Your task to perform on an android device: Go to accessibility settings Image 0: 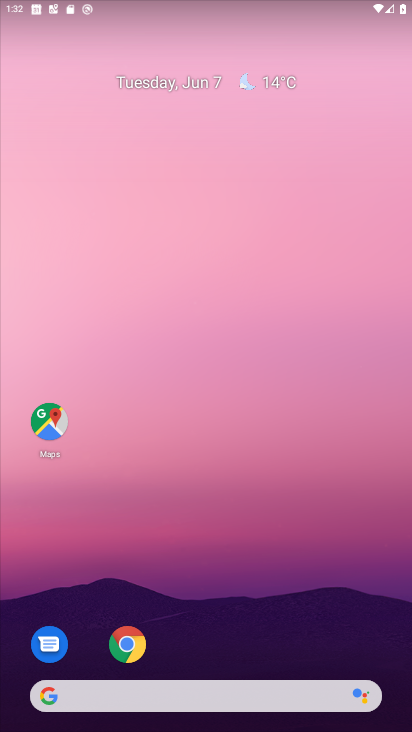
Step 0: drag from (294, 626) to (296, 0)
Your task to perform on an android device: Go to accessibility settings Image 1: 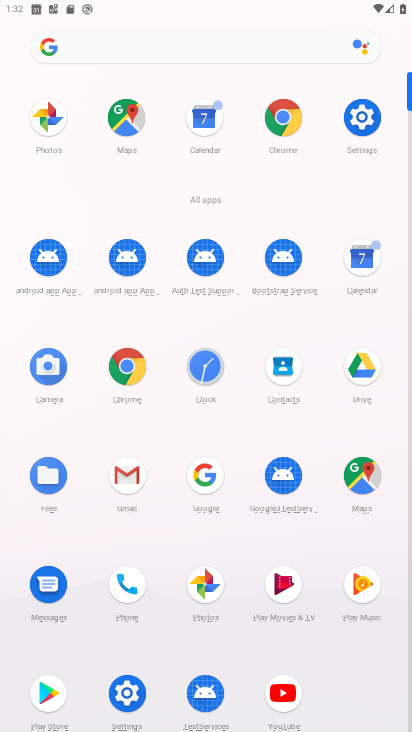
Step 1: click (357, 122)
Your task to perform on an android device: Go to accessibility settings Image 2: 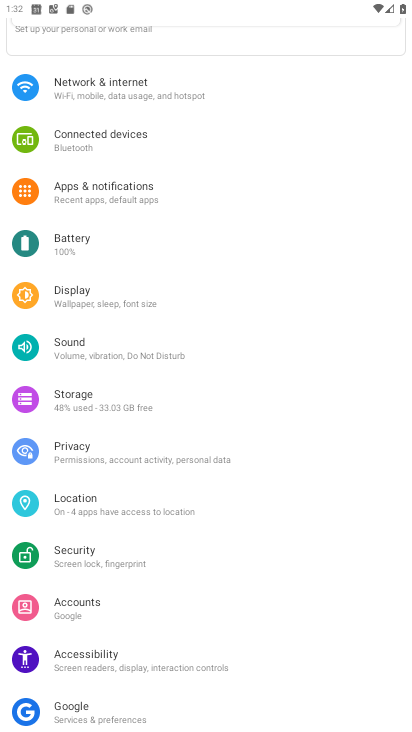
Step 2: click (96, 645)
Your task to perform on an android device: Go to accessibility settings Image 3: 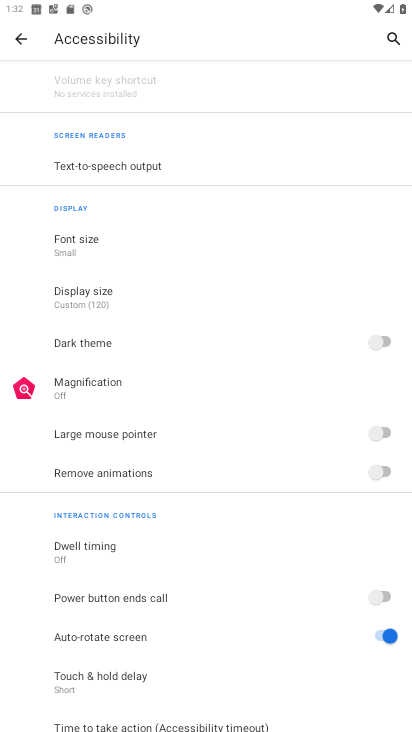
Step 3: task complete